Your task to perform on an android device: Open Google Maps Image 0: 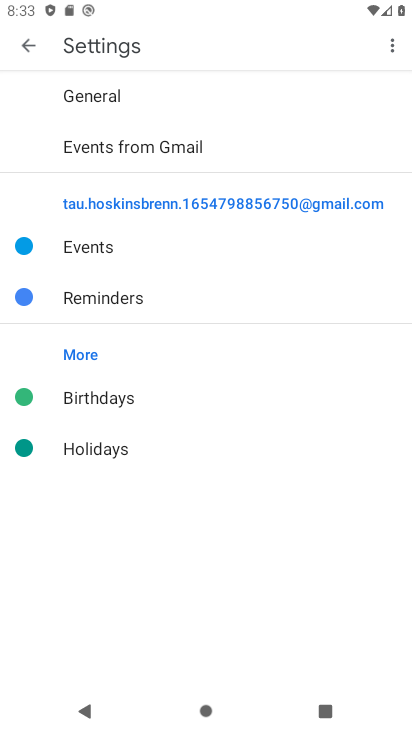
Step 0: press home button
Your task to perform on an android device: Open Google Maps Image 1: 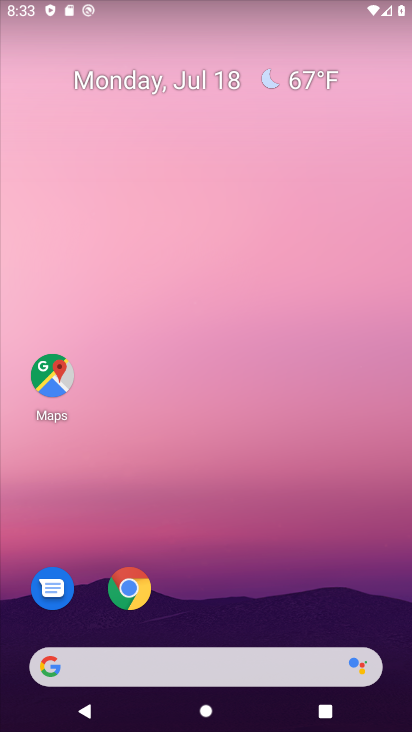
Step 1: click (54, 375)
Your task to perform on an android device: Open Google Maps Image 2: 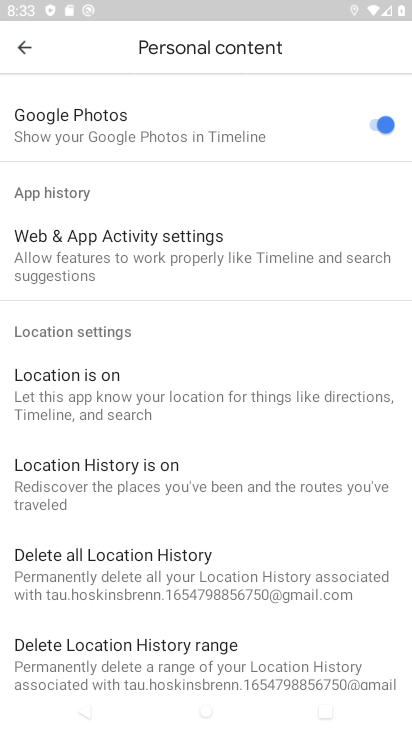
Step 2: press back button
Your task to perform on an android device: Open Google Maps Image 3: 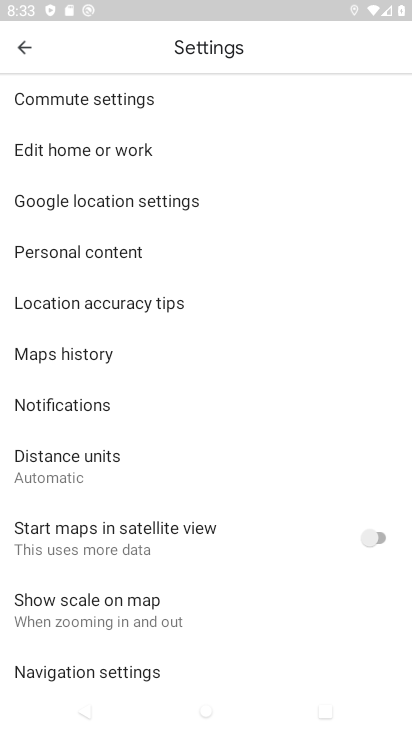
Step 3: press back button
Your task to perform on an android device: Open Google Maps Image 4: 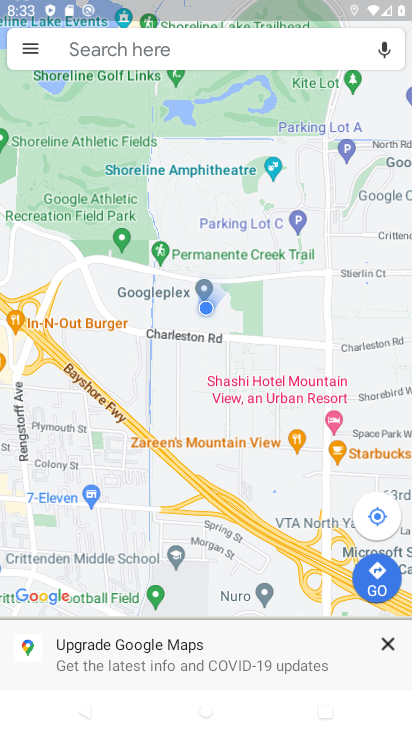
Step 4: click (386, 644)
Your task to perform on an android device: Open Google Maps Image 5: 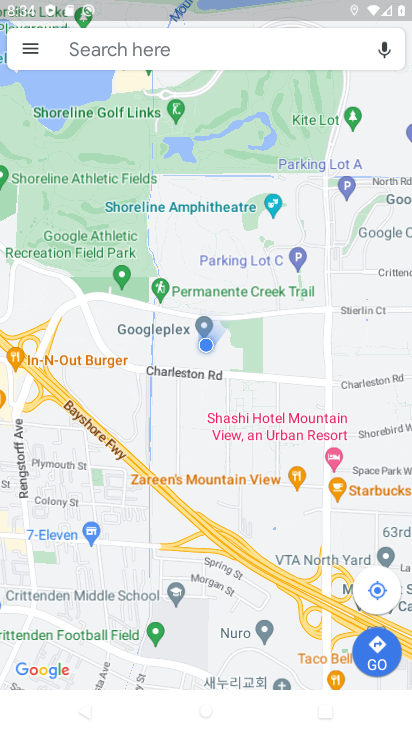
Step 5: task complete